Your task to perform on an android device: Open Reddit.com Image 0: 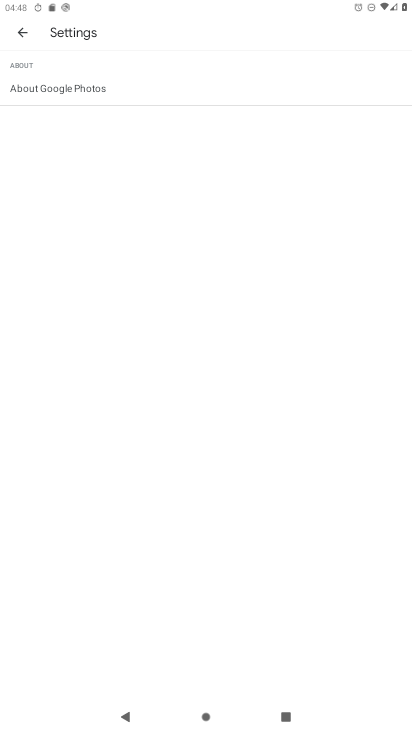
Step 0: press home button
Your task to perform on an android device: Open Reddit.com Image 1: 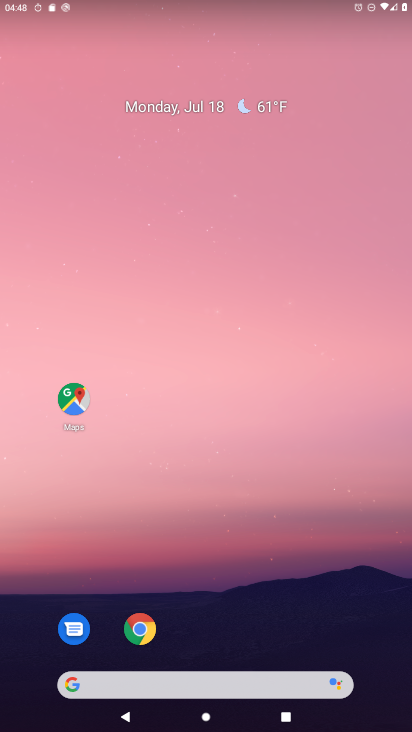
Step 1: click (142, 632)
Your task to perform on an android device: Open Reddit.com Image 2: 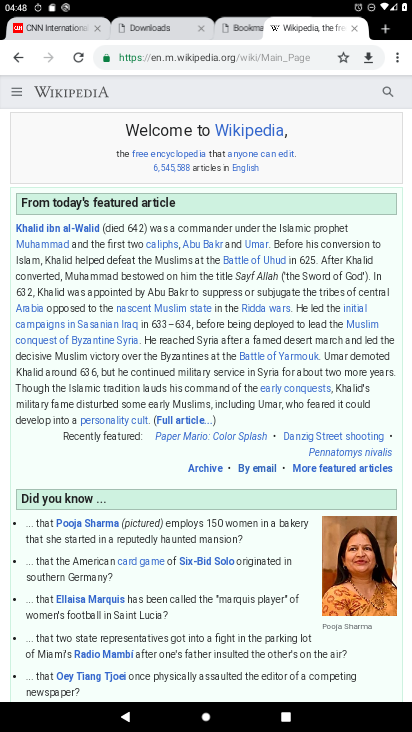
Step 2: click (246, 58)
Your task to perform on an android device: Open Reddit.com Image 3: 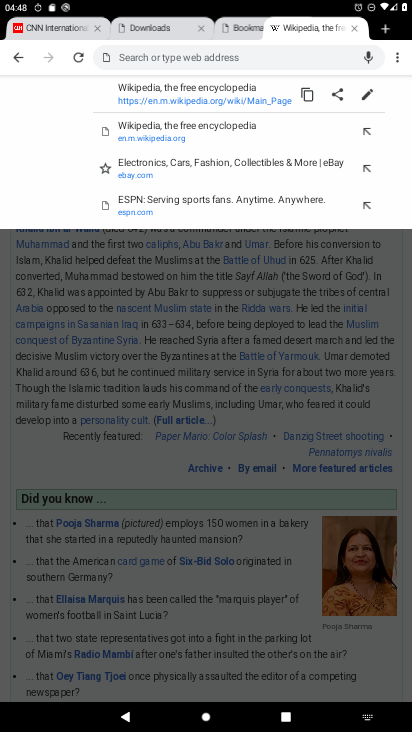
Step 3: type "Reddit.com"
Your task to perform on an android device: Open Reddit.com Image 4: 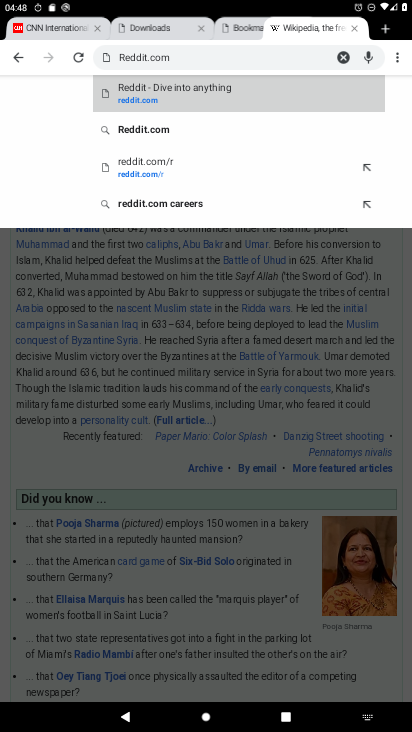
Step 4: click (159, 129)
Your task to perform on an android device: Open Reddit.com Image 5: 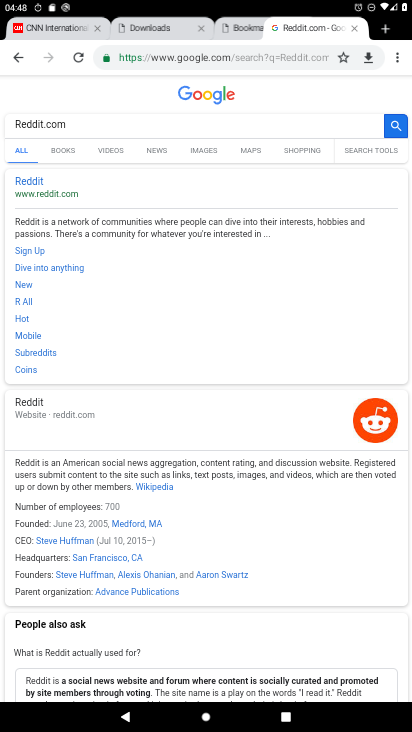
Step 5: click (59, 197)
Your task to perform on an android device: Open Reddit.com Image 6: 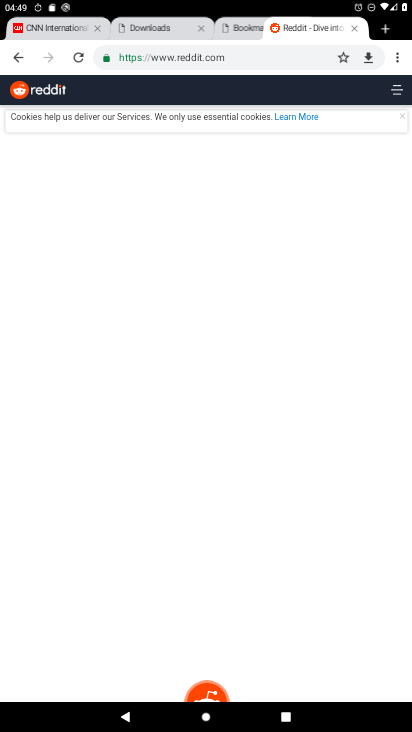
Step 6: task complete